Your task to perform on an android device: open the mobile data screen to see how much data has been used Image 0: 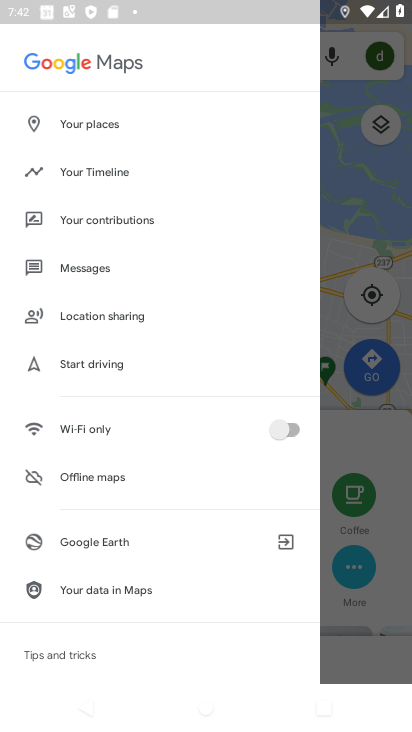
Step 0: press back button
Your task to perform on an android device: open the mobile data screen to see how much data has been used Image 1: 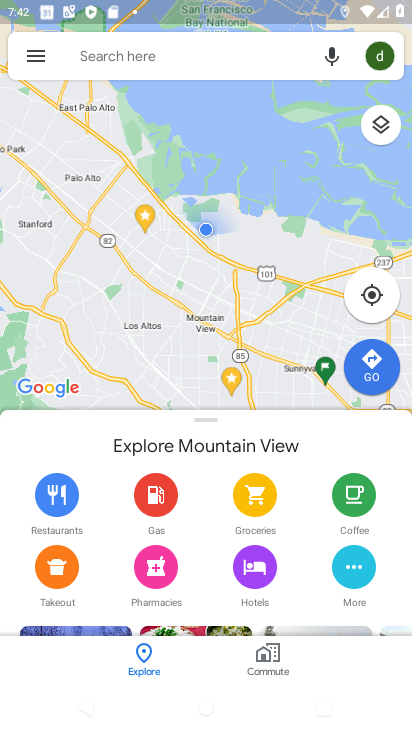
Step 1: press home button
Your task to perform on an android device: open the mobile data screen to see how much data has been used Image 2: 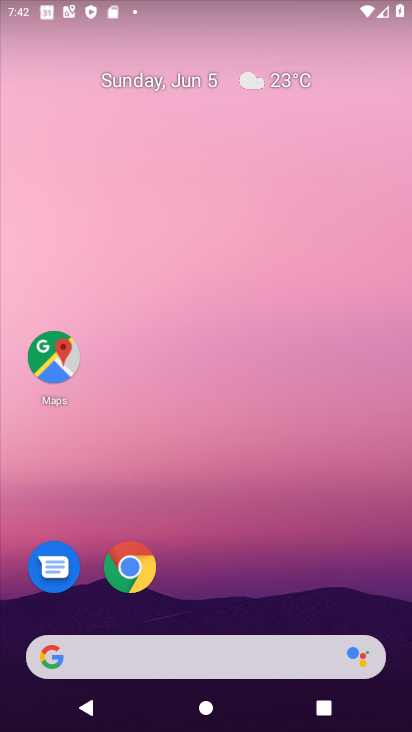
Step 2: drag from (405, 674) to (293, 15)
Your task to perform on an android device: open the mobile data screen to see how much data has been used Image 3: 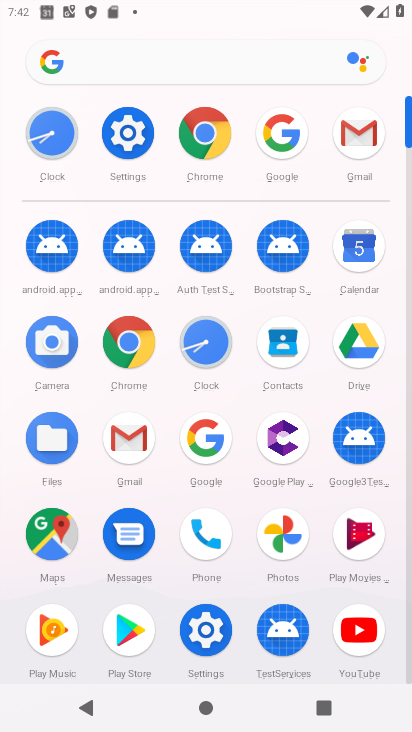
Step 3: click (130, 146)
Your task to perform on an android device: open the mobile data screen to see how much data has been used Image 4: 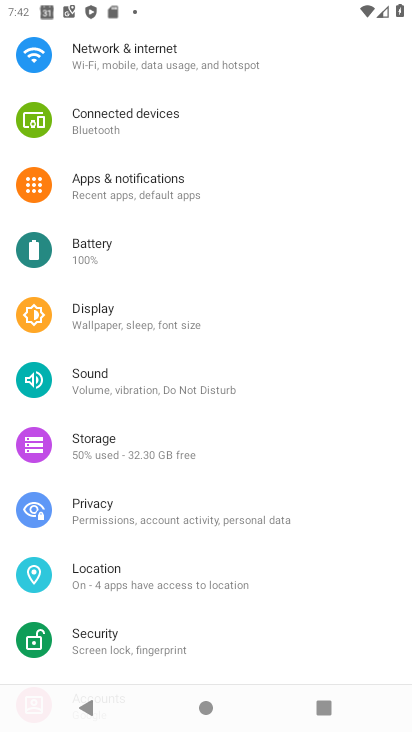
Step 4: drag from (130, 146) to (165, 533)
Your task to perform on an android device: open the mobile data screen to see how much data has been used Image 5: 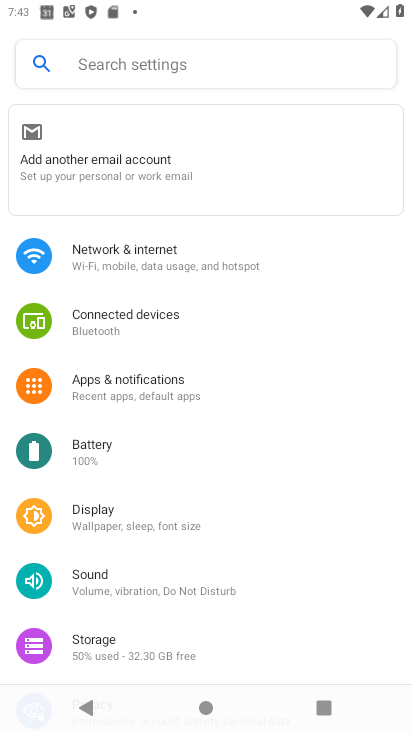
Step 5: click (167, 282)
Your task to perform on an android device: open the mobile data screen to see how much data has been used Image 6: 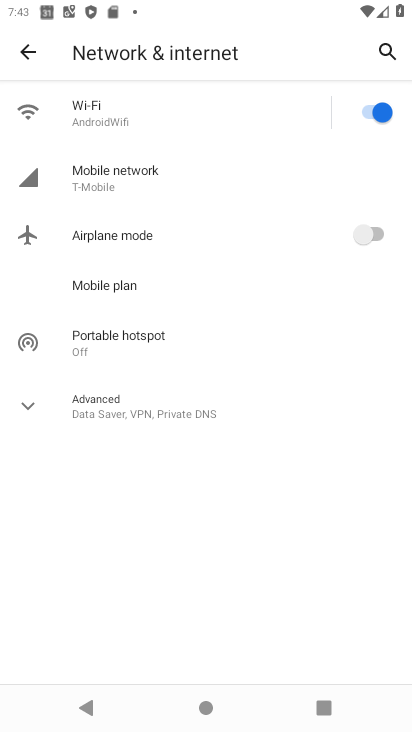
Step 6: click (134, 188)
Your task to perform on an android device: open the mobile data screen to see how much data has been used Image 7: 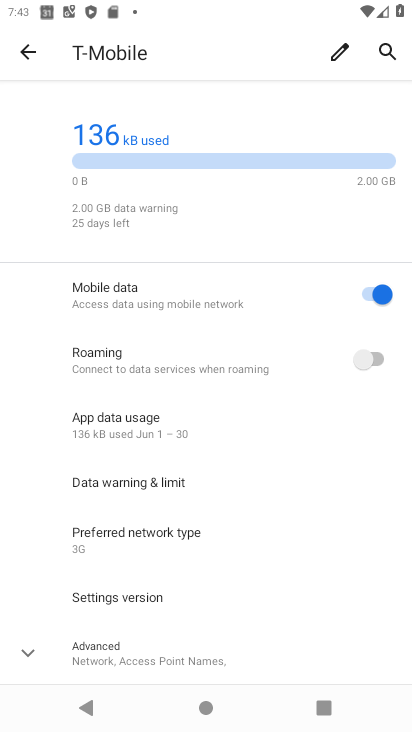
Step 7: click (220, 415)
Your task to perform on an android device: open the mobile data screen to see how much data has been used Image 8: 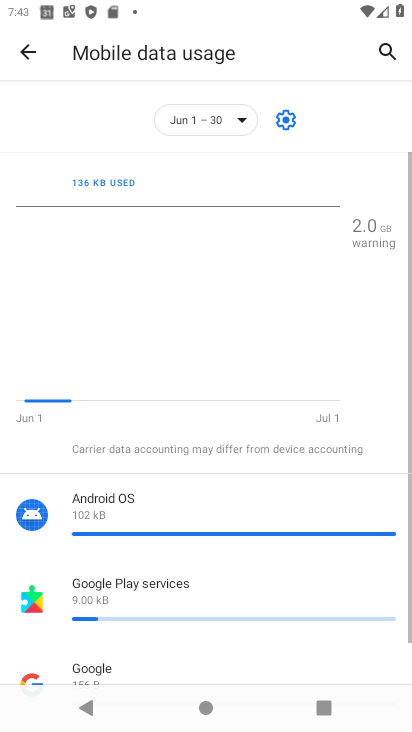
Step 8: task complete